Your task to perform on an android device: What is the news today? Image 0: 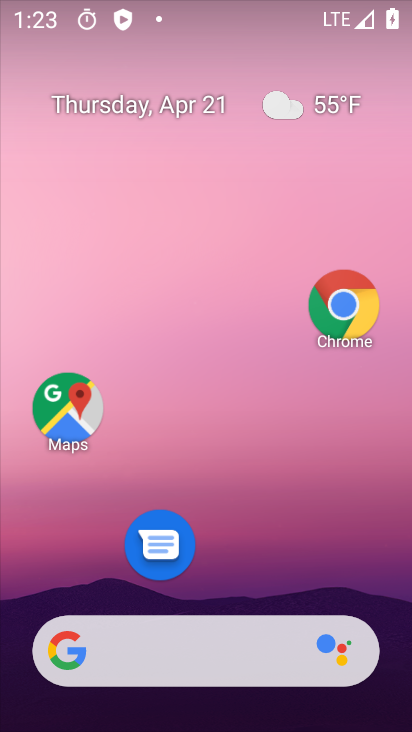
Step 0: drag from (28, 261) to (372, 210)
Your task to perform on an android device: What is the news today? Image 1: 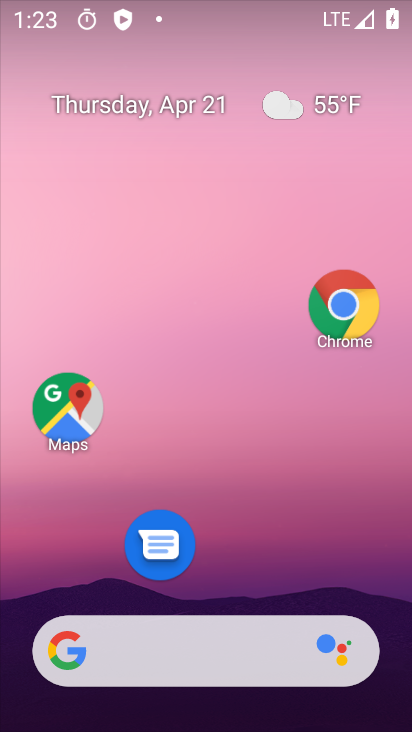
Step 1: task complete